Your task to perform on an android device: Open Wikipedia Image 0: 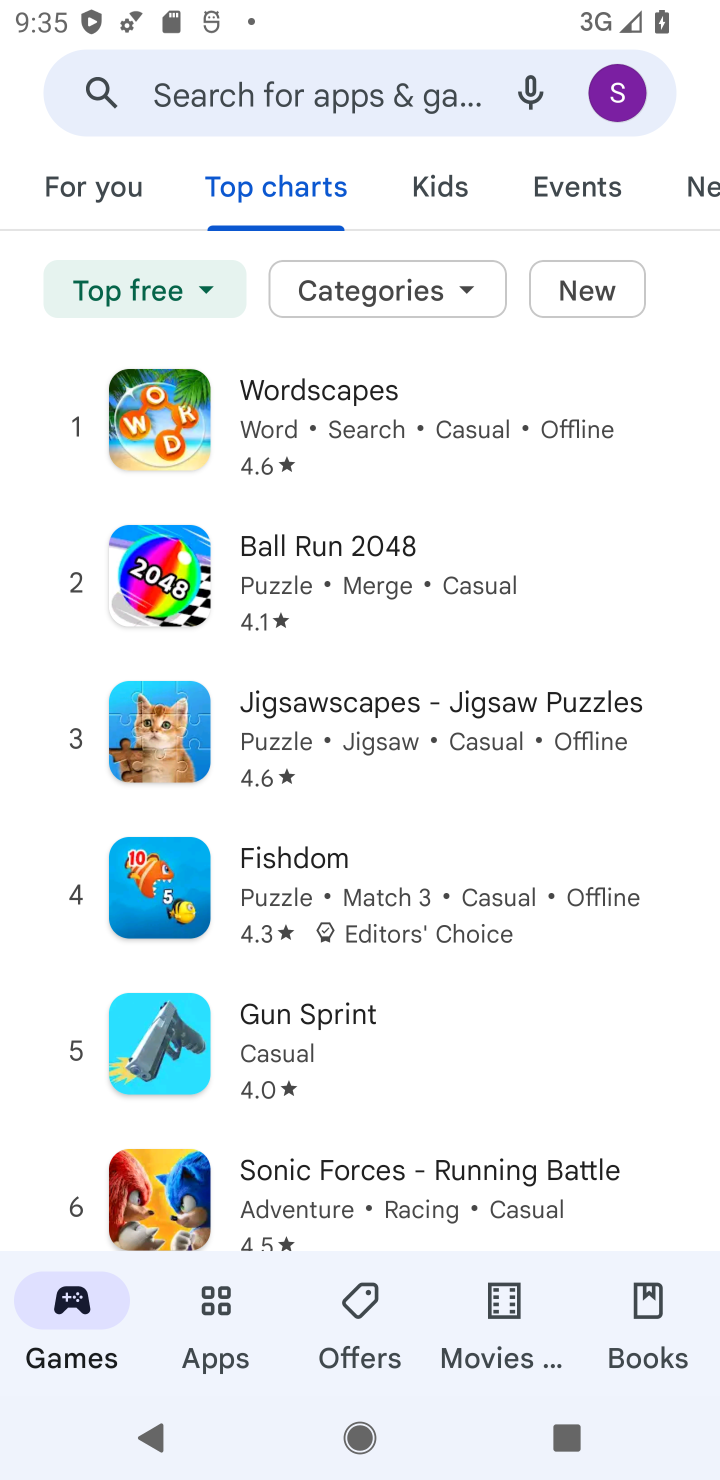
Step 0: press home button
Your task to perform on an android device: Open Wikipedia Image 1: 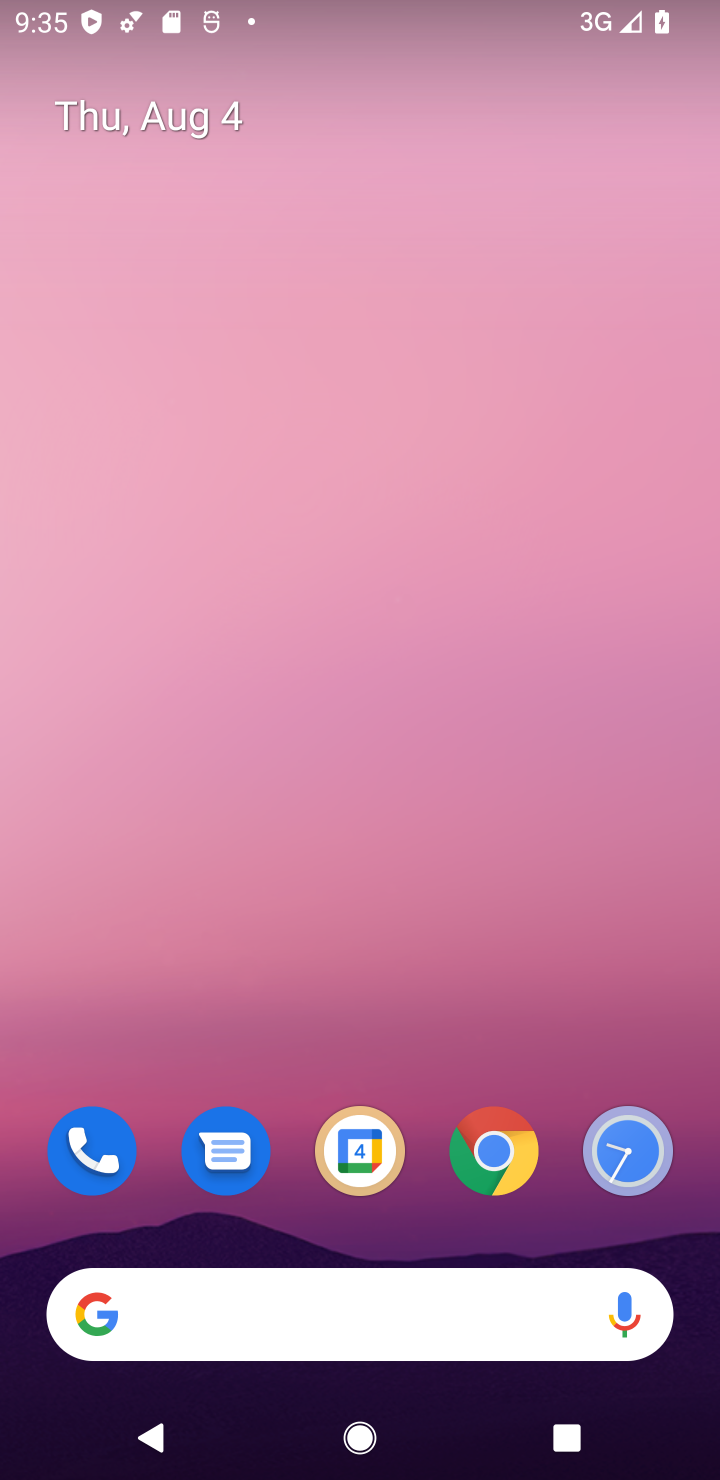
Step 1: click (499, 1145)
Your task to perform on an android device: Open Wikipedia Image 2: 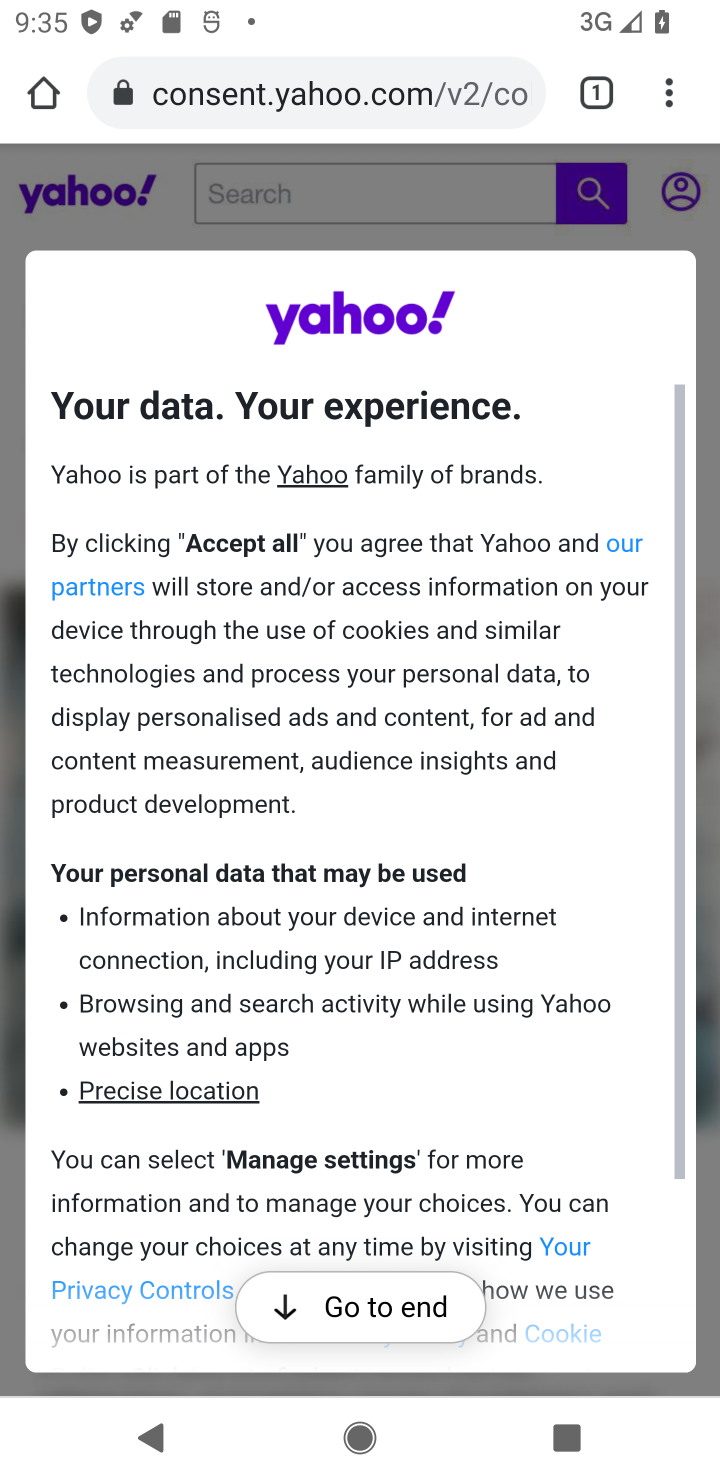
Step 2: click (597, 107)
Your task to perform on an android device: Open Wikipedia Image 3: 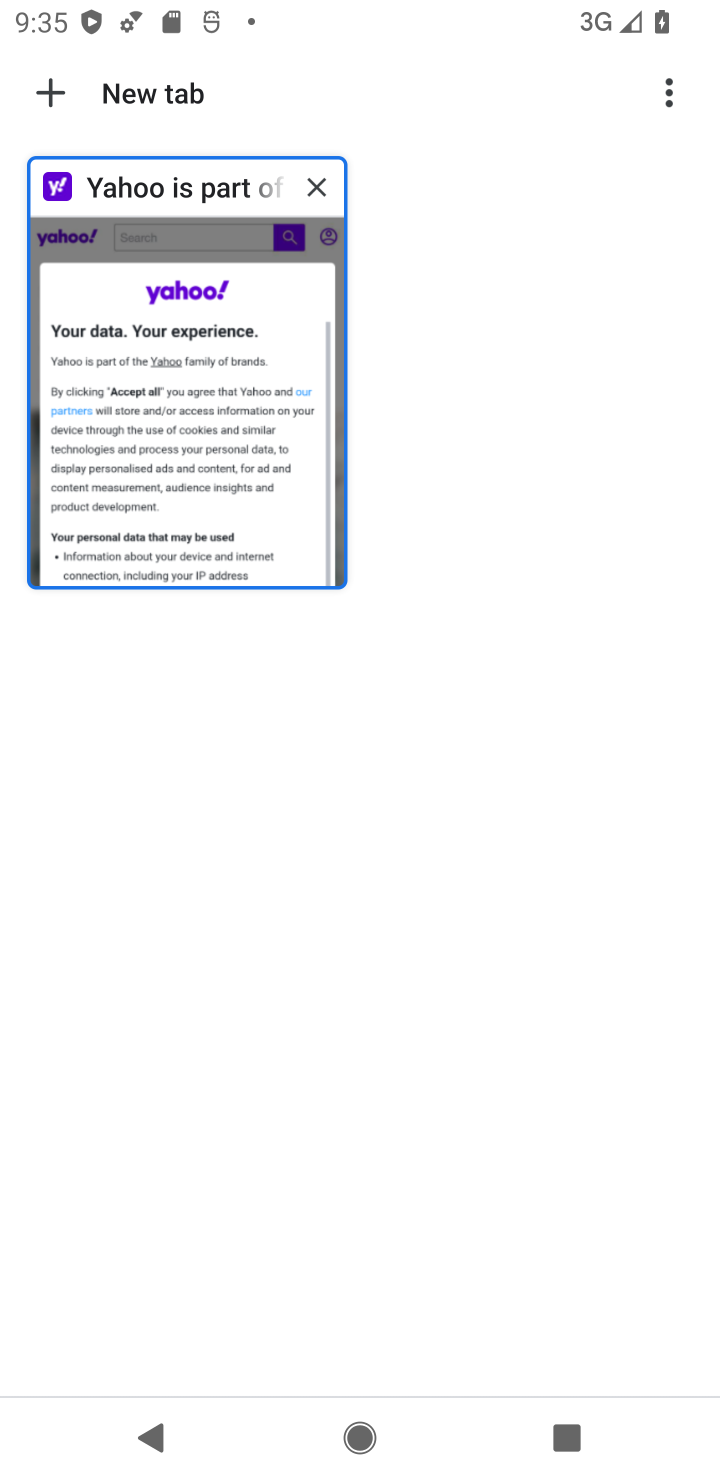
Step 3: click (315, 187)
Your task to perform on an android device: Open Wikipedia Image 4: 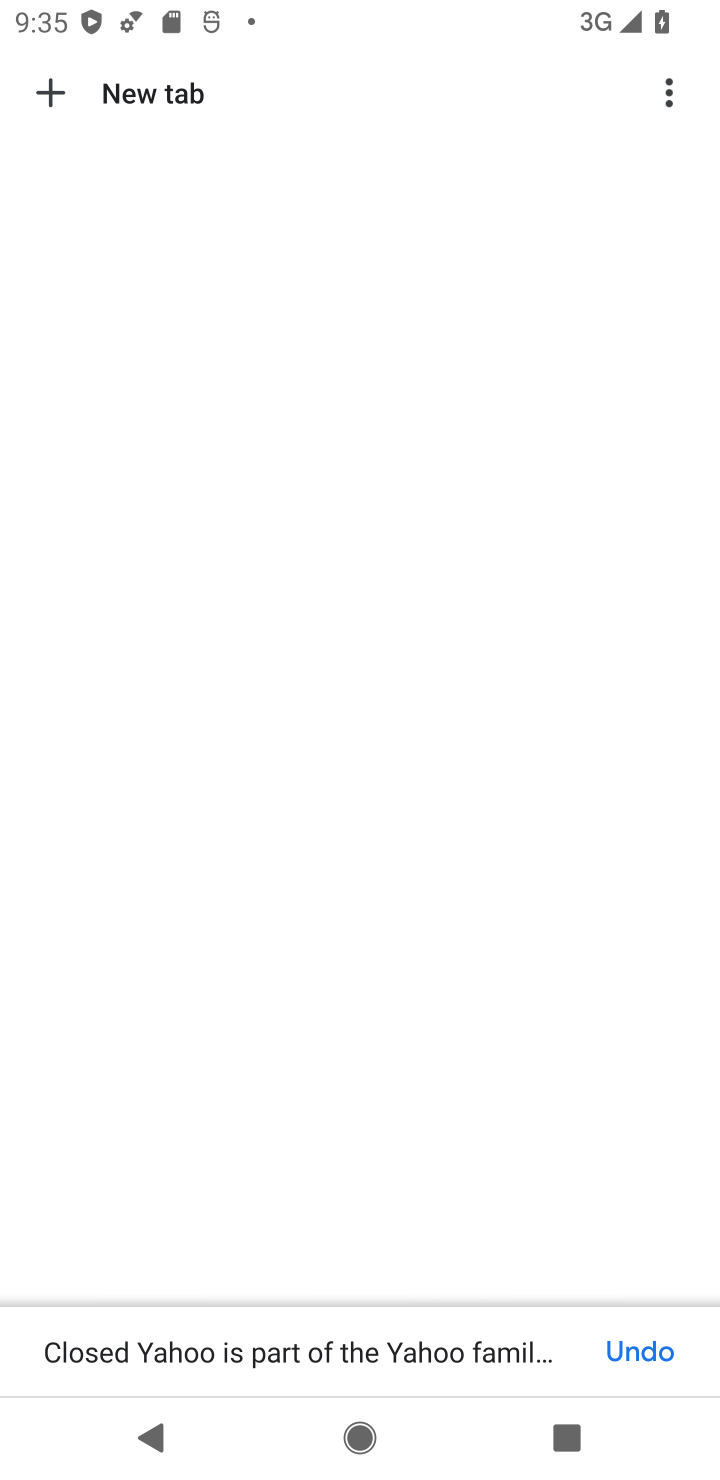
Step 4: click (57, 99)
Your task to perform on an android device: Open Wikipedia Image 5: 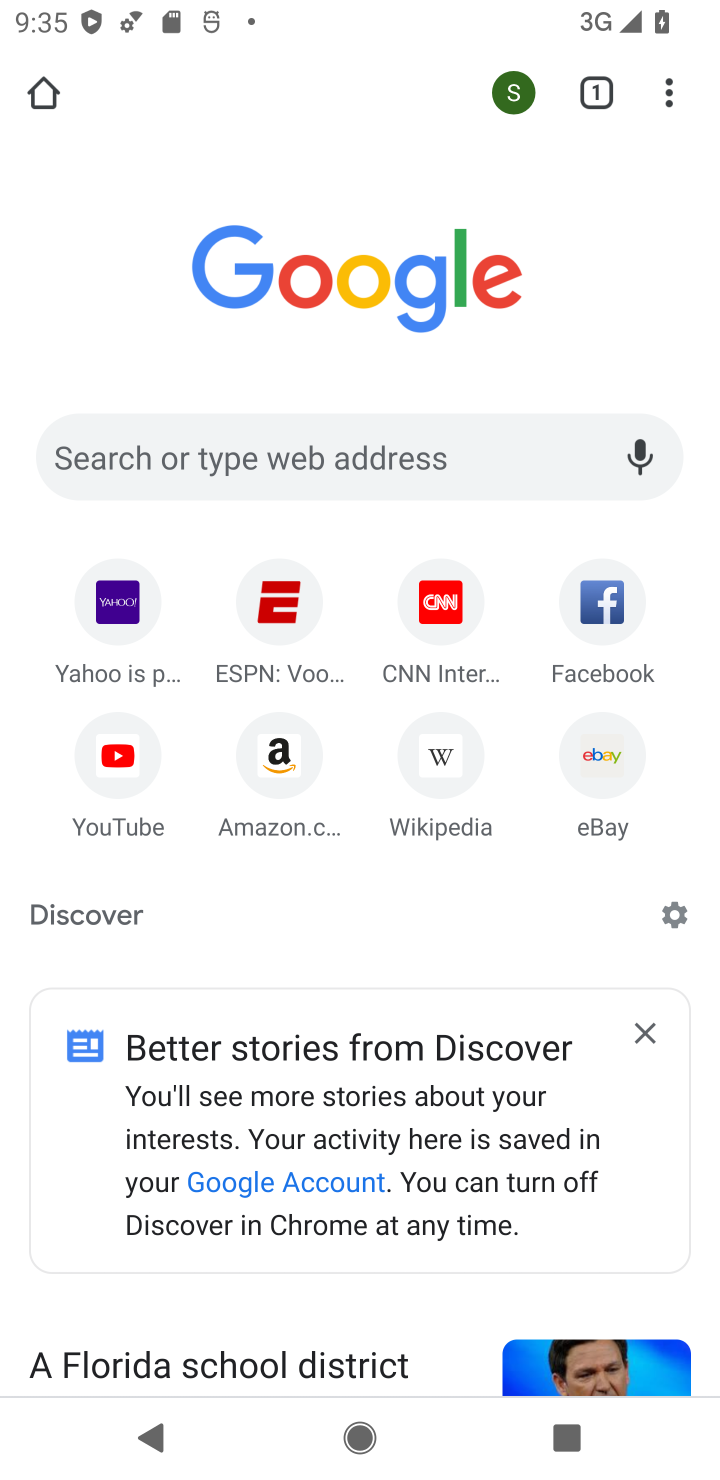
Step 5: click (490, 463)
Your task to perform on an android device: Open Wikipedia Image 6: 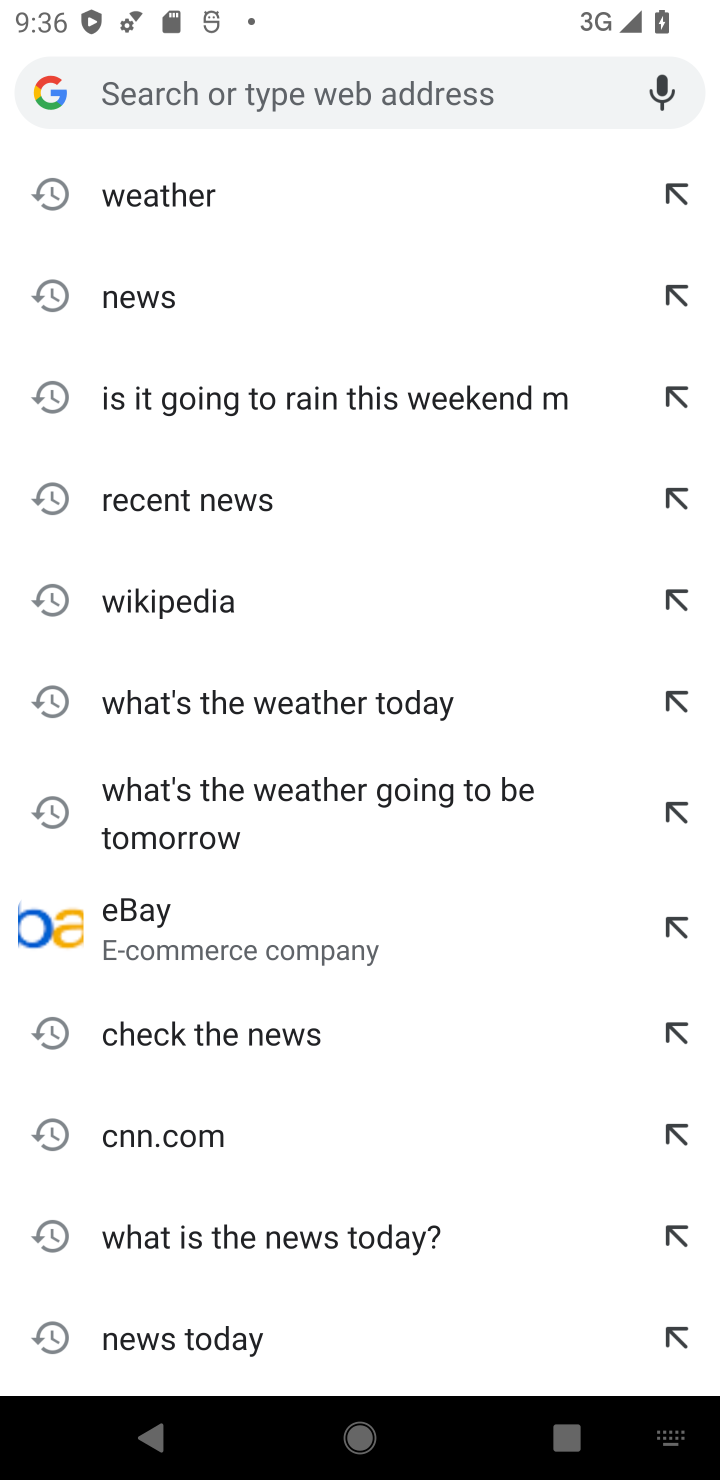
Step 6: type "wikipedia"
Your task to perform on an android device: Open Wikipedia Image 7: 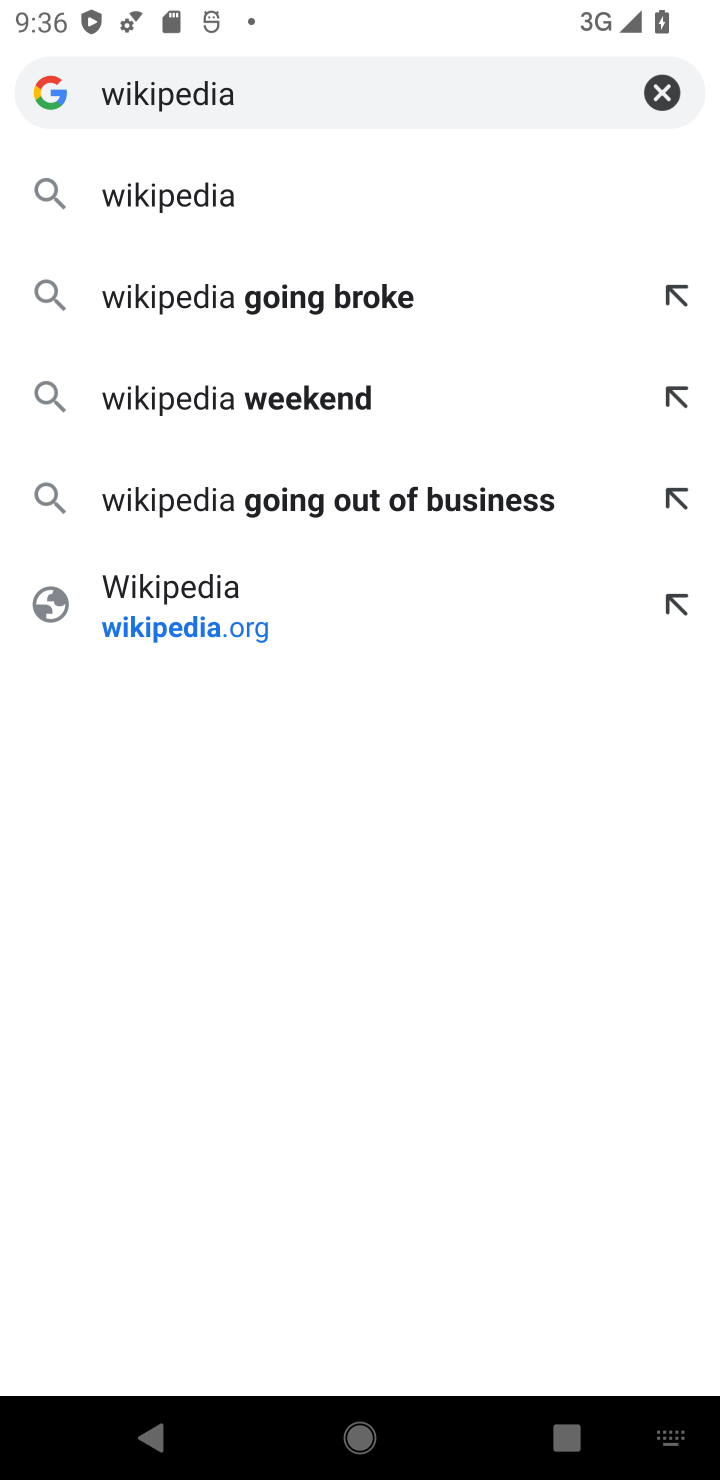
Step 7: click (275, 198)
Your task to perform on an android device: Open Wikipedia Image 8: 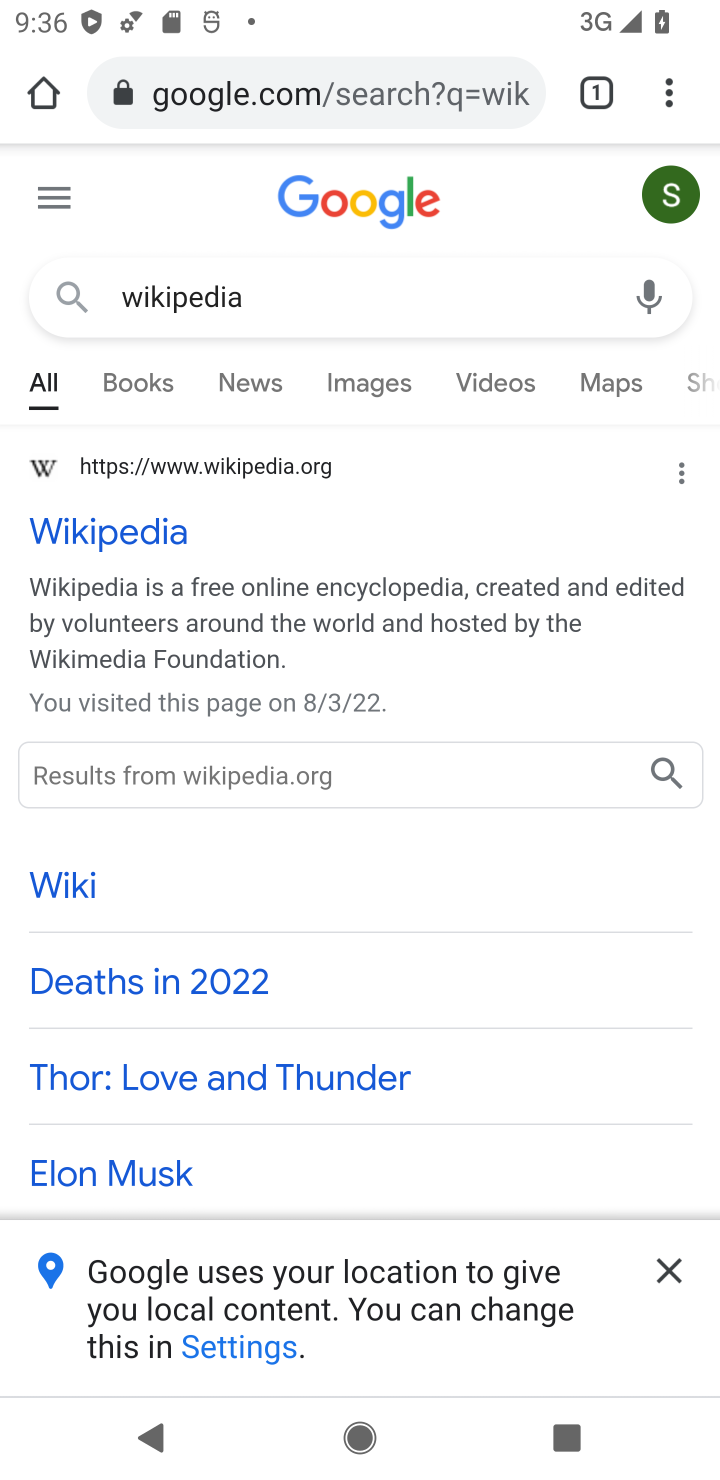
Step 8: click (162, 536)
Your task to perform on an android device: Open Wikipedia Image 9: 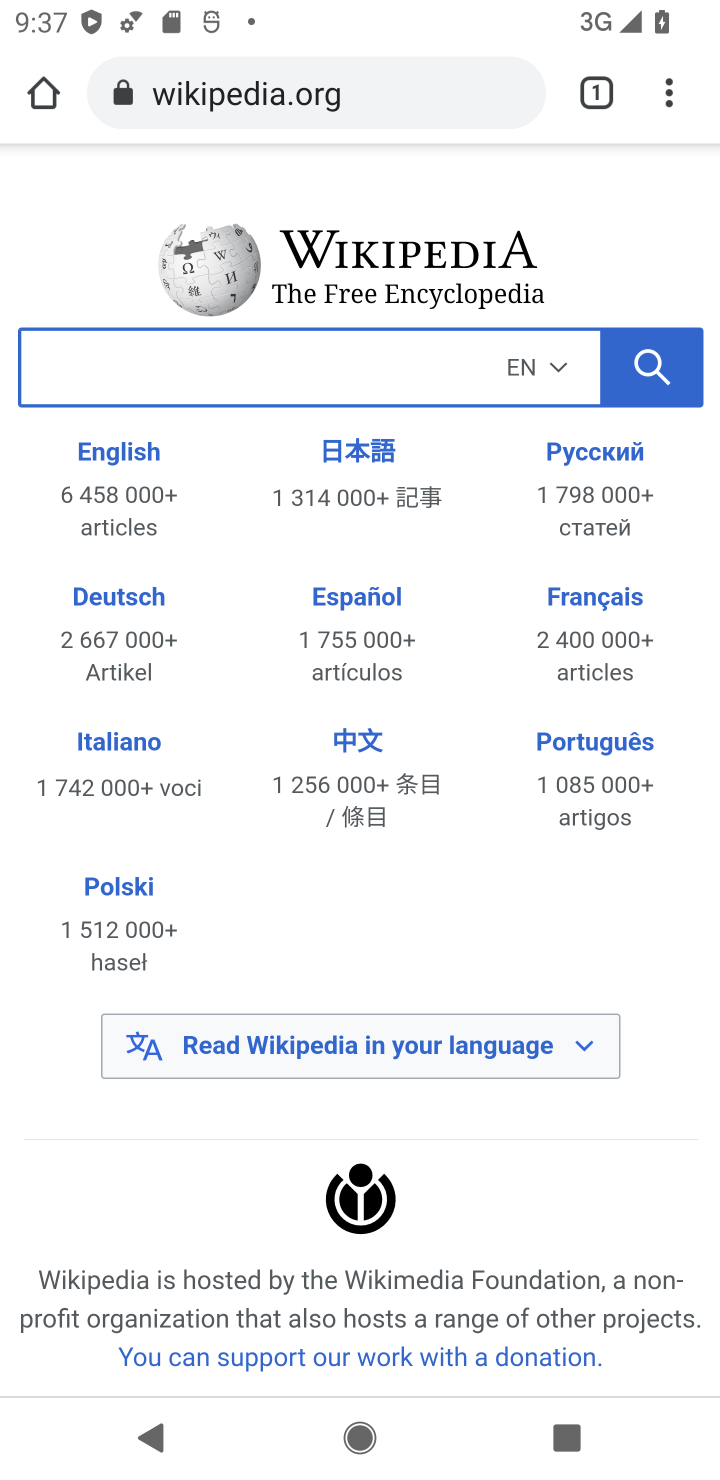
Step 9: task complete